Your task to perform on an android device: Open the web browser Image 0: 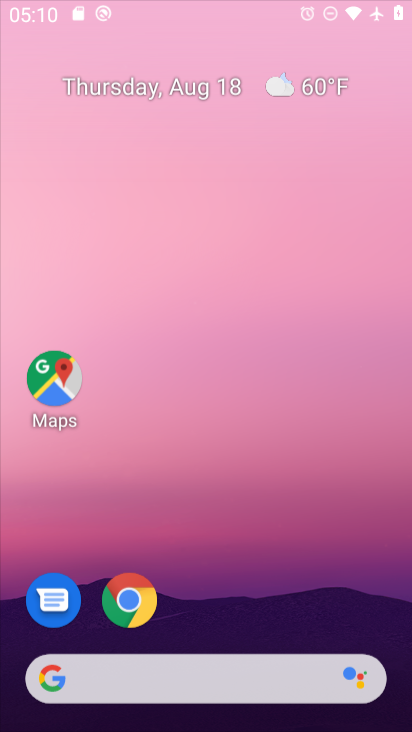
Step 0: press home button
Your task to perform on an android device: Open the web browser Image 1: 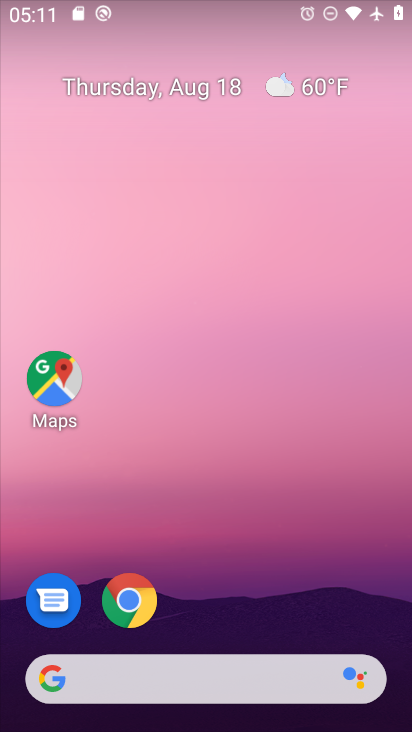
Step 1: click (49, 694)
Your task to perform on an android device: Open the web browser Image 2: 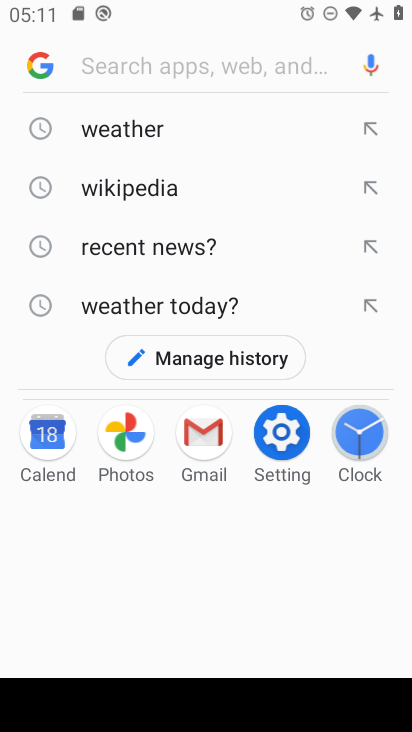
Step 2: task complete